Your task to perform on an android device: change keyboard looks Image 0: 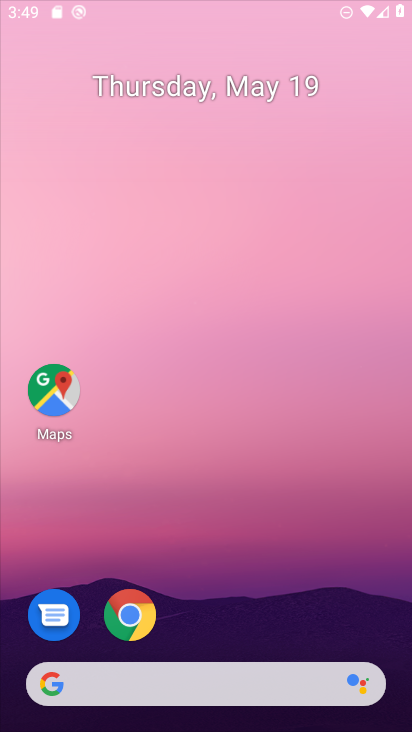
Step 0: click (207, 682)
Your task to perform on an android device: change keyboard looks Image 1: 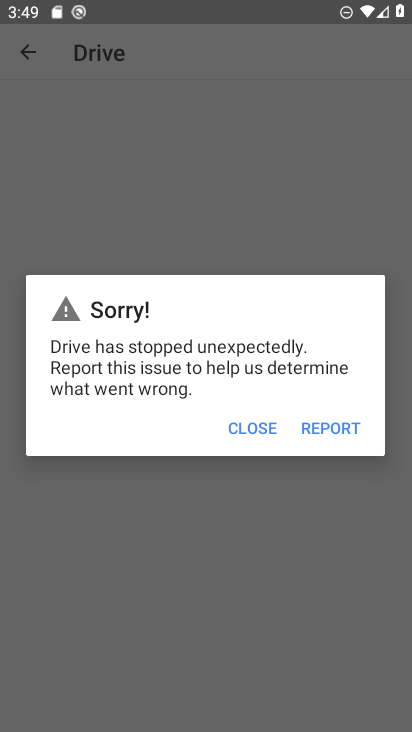
Step 1: press home button
Your task to perform on an android device: change keyboard looks Image 2: 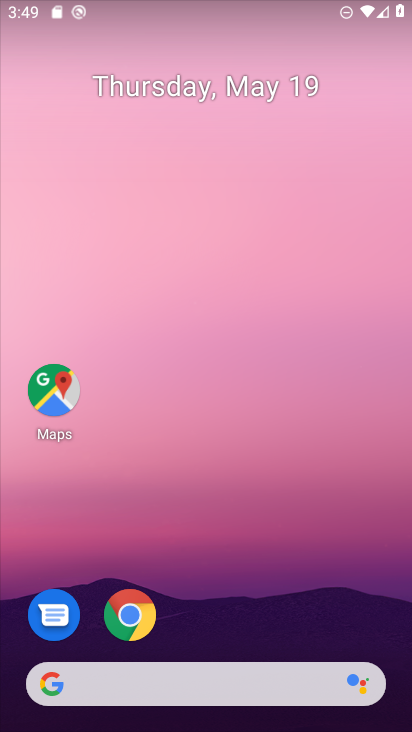
Step 2: drag from (272, 635) to (219, 258)
Your task to perform on an android device: change keyboard looks Image 3: 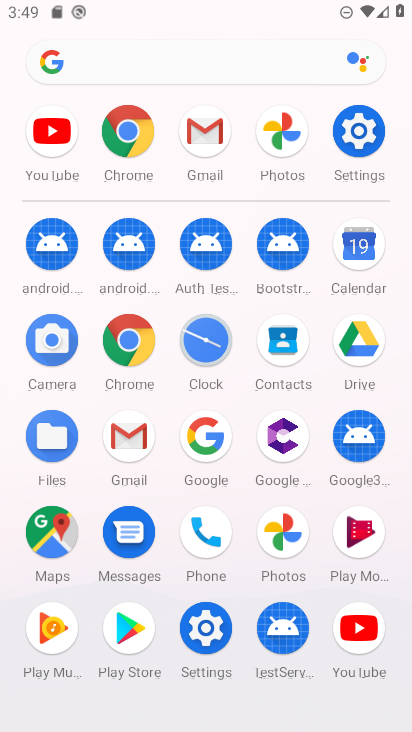
Step 3: click (367, 151)
Your task to perform on an android device: change keyboard looks Image 4: 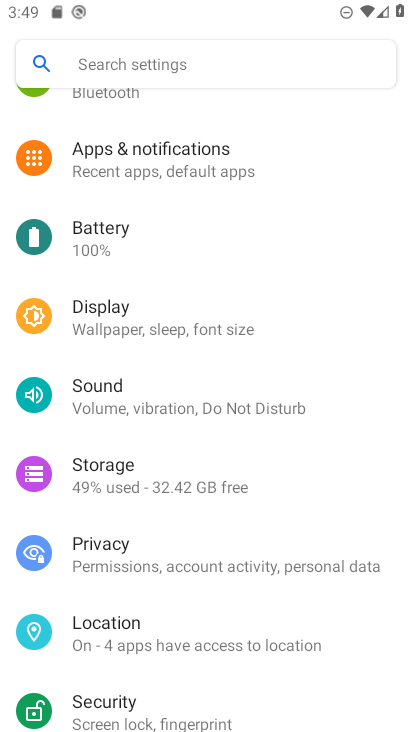
Step 4: drag from (236, 678) to (191, 301)
Your task to perform on an android device: change keyboard looks Image 5: 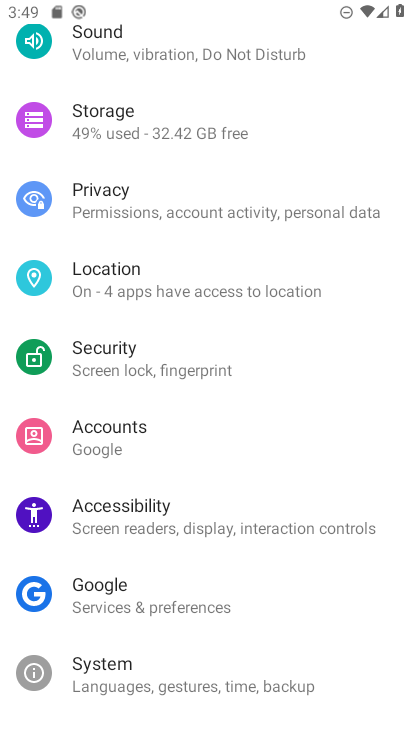
Step 5: click (234, 680)
Your task to perform on an android device: change keyboard looks Image 6: 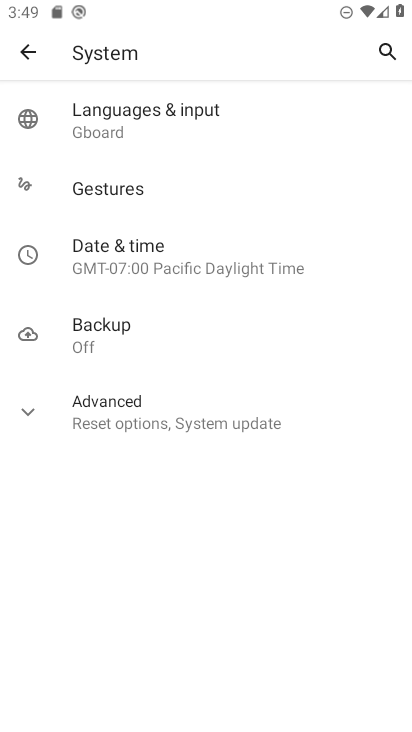
Step 6: click (254, 135)
Your task to perform on an android device: change keyboard looks Image 7: 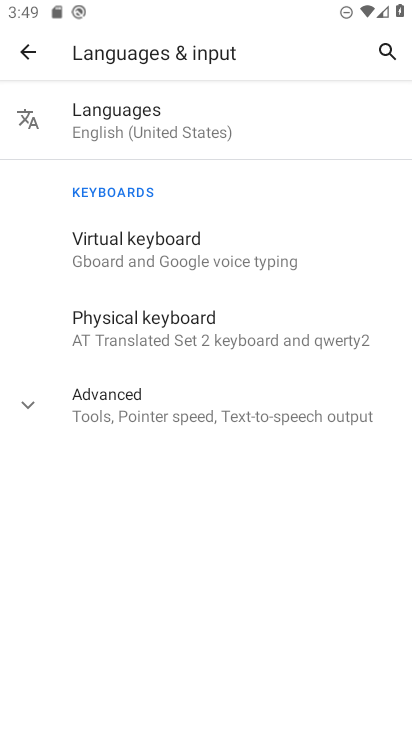
Step 7: click (274, 264)
Your task to perform on an android device: change keyboard looks Image 8: 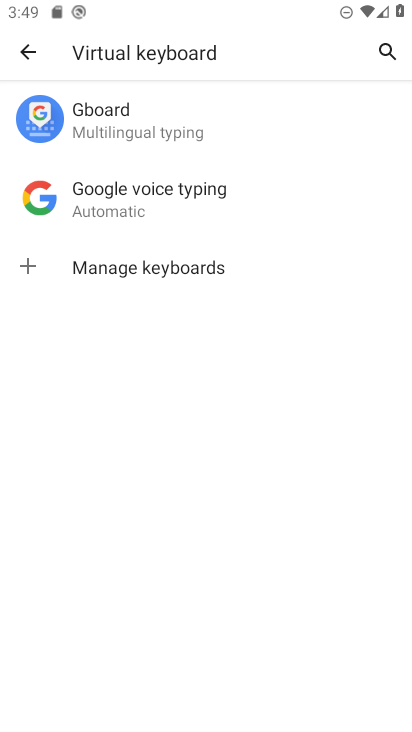
Step 8: click (162, 124)
Your task to perform on an android device: change keyboard looks Image 9: 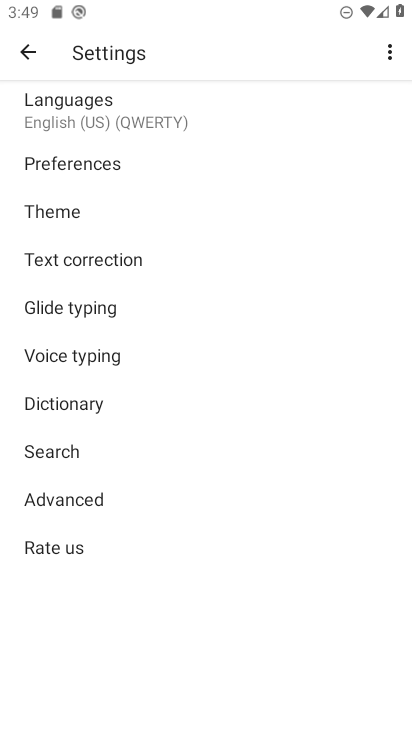
Step 9: click (114, 204)
Your task to perform on an android device: change keyboard looks Image 10: 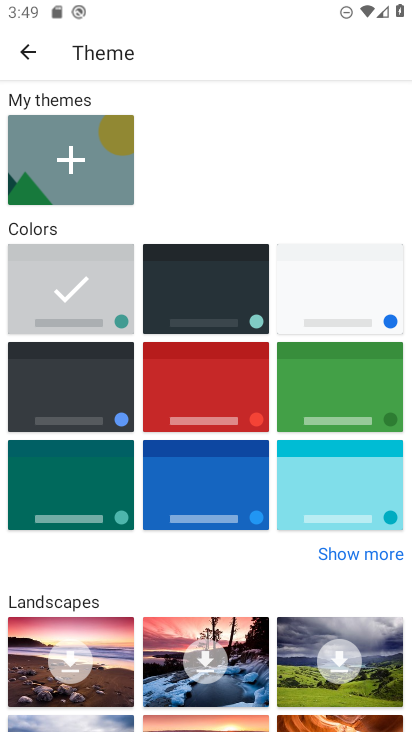
Step 10: click (194, 288)
Your task to perform on an android device: change keyboard looks Image 11: 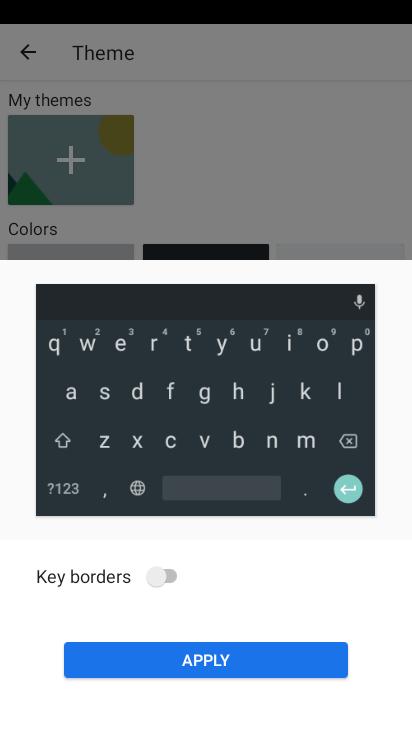
Step 11: click (278, 653)
Your task to perform on an android device: change keyboard looks Image 12: 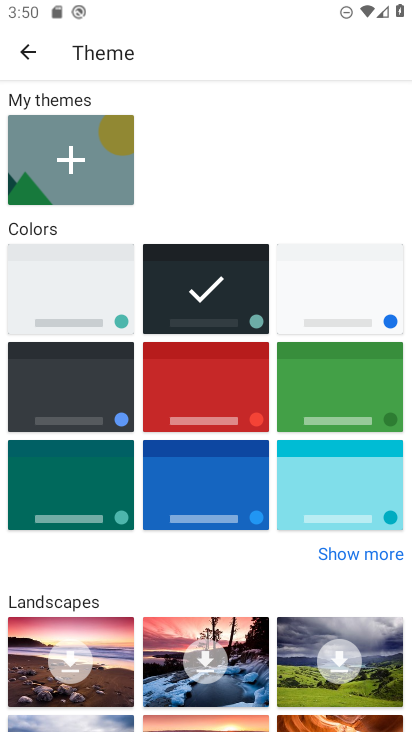
Step 12: task complete